Your task to perform on an android device: turn notification dots off Image 0: 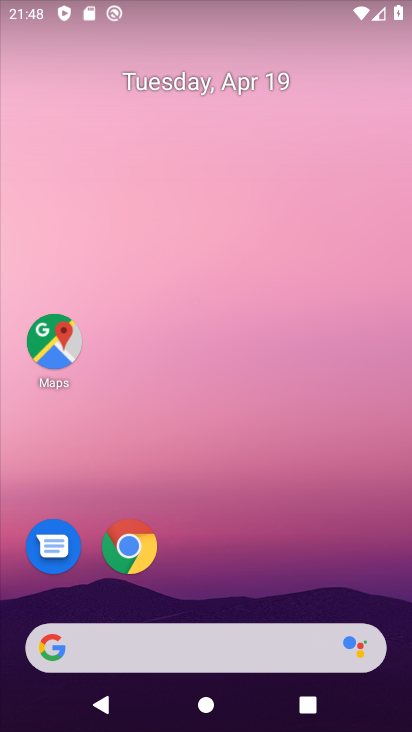
Step 0: drag from (193, 608) to (198, 3)
Your task to perform on an android device: turn notification dots off Image 1: 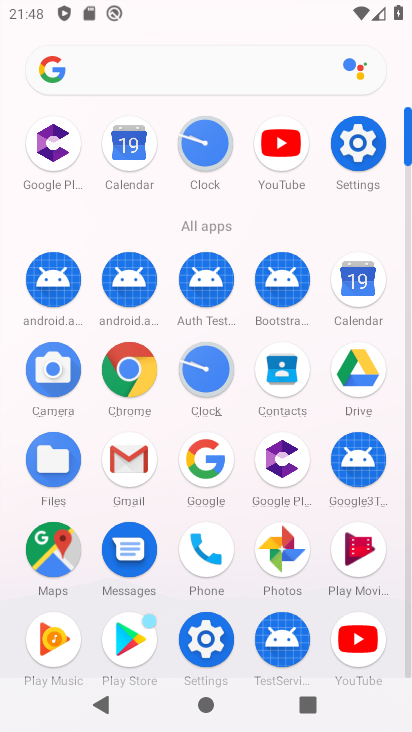
Step 1: click (344, 155)
Your task to perform on an android device: turn notification dots off Image 2: 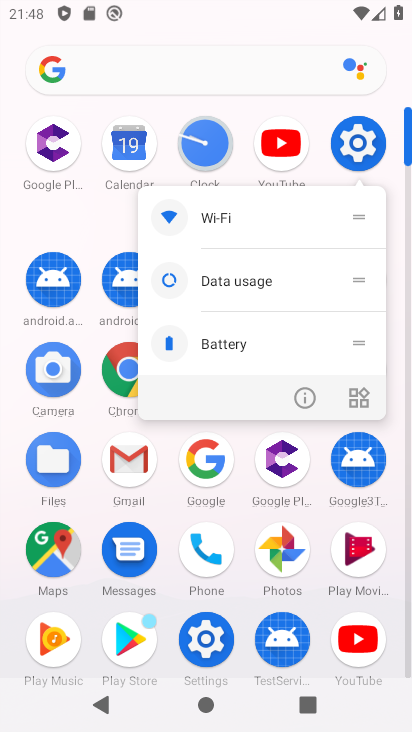
Step 2: click (355, 132)
Your task to perform on an android device: turn notification dots off Image 3: 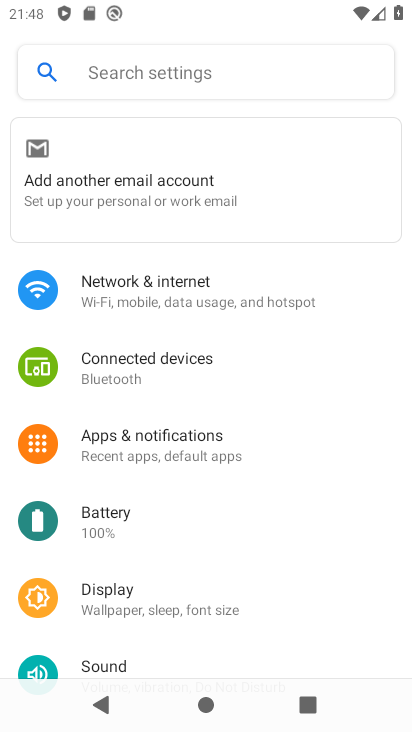
Step 3: click (214, 456)
Your task to perform on an android device: turn notification dots off Image 4: 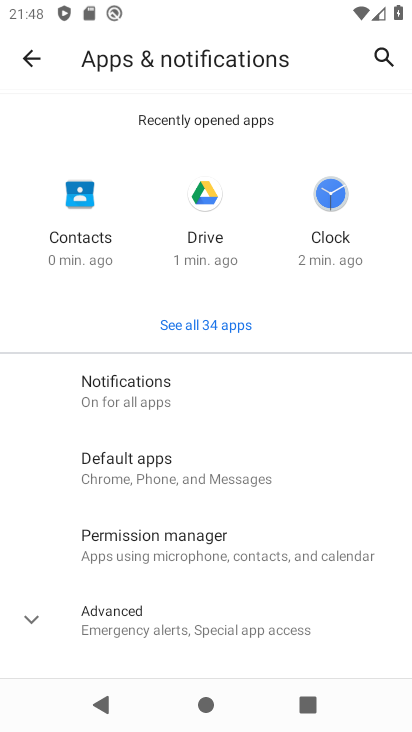
Step 4: click (153, 407)
Your task to perform on an android device: turn notification dots off Image 5: 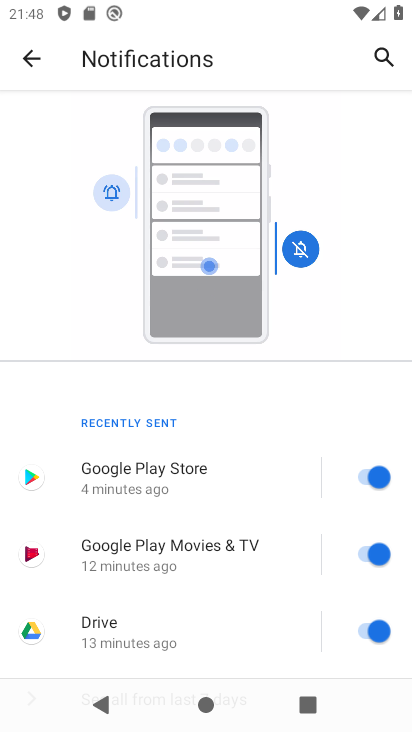
Step 5: drag from (198, 597) to (217, 153)
Your task to perform on an android device: turn notification dots off Image 6: 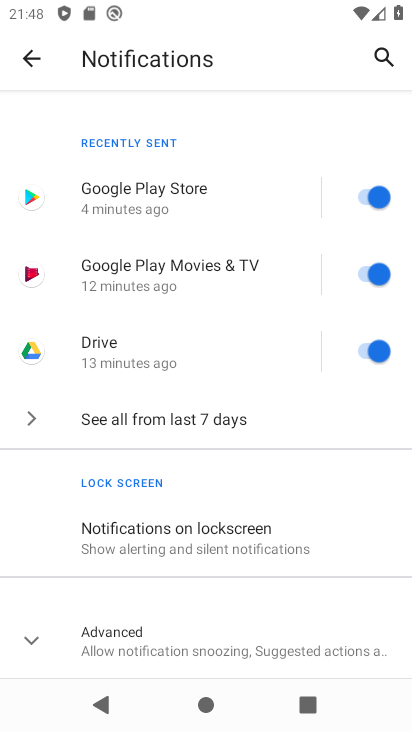
Step 6: click (176, 636)
Your task to perform on an android device: turn notification dots off Image 7: 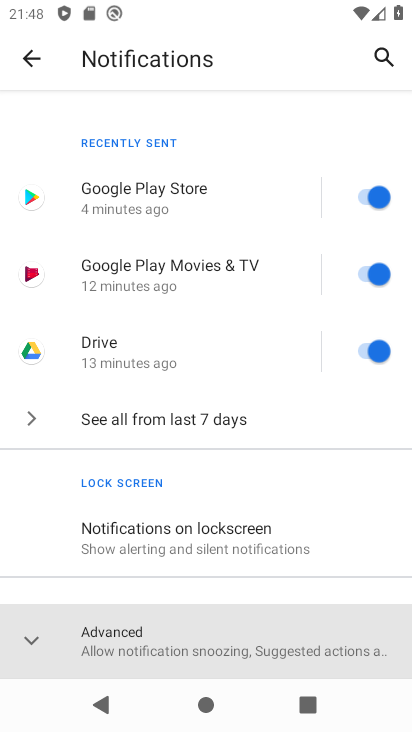
Step 7: drag from (182, 611) to (177, 164)
Your task to perform on an android device: turn notification dots off Image 8: 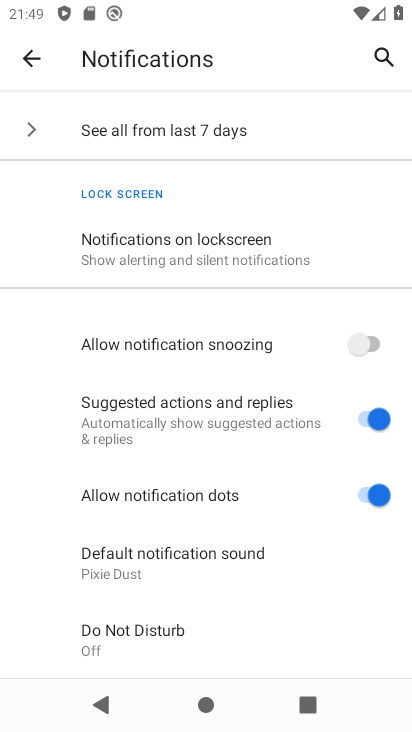
Step 8: click (387, 501)
Your task to perform on an android device: turn notification dots off Image 9: 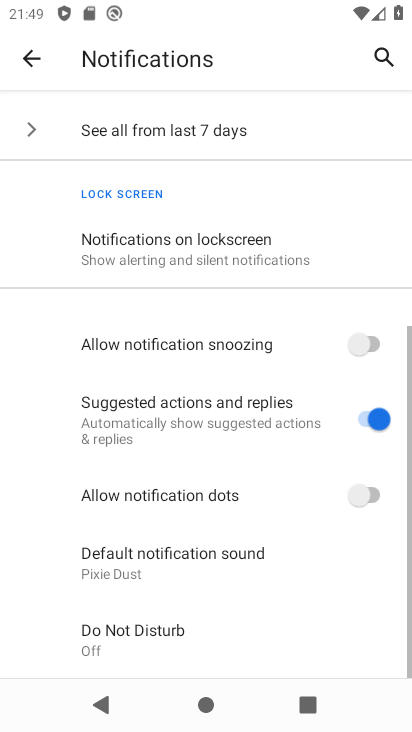
Step 9: task complete